Your task to perform on an android device: Show the shopping cart on bestbuy.com. Image 0: 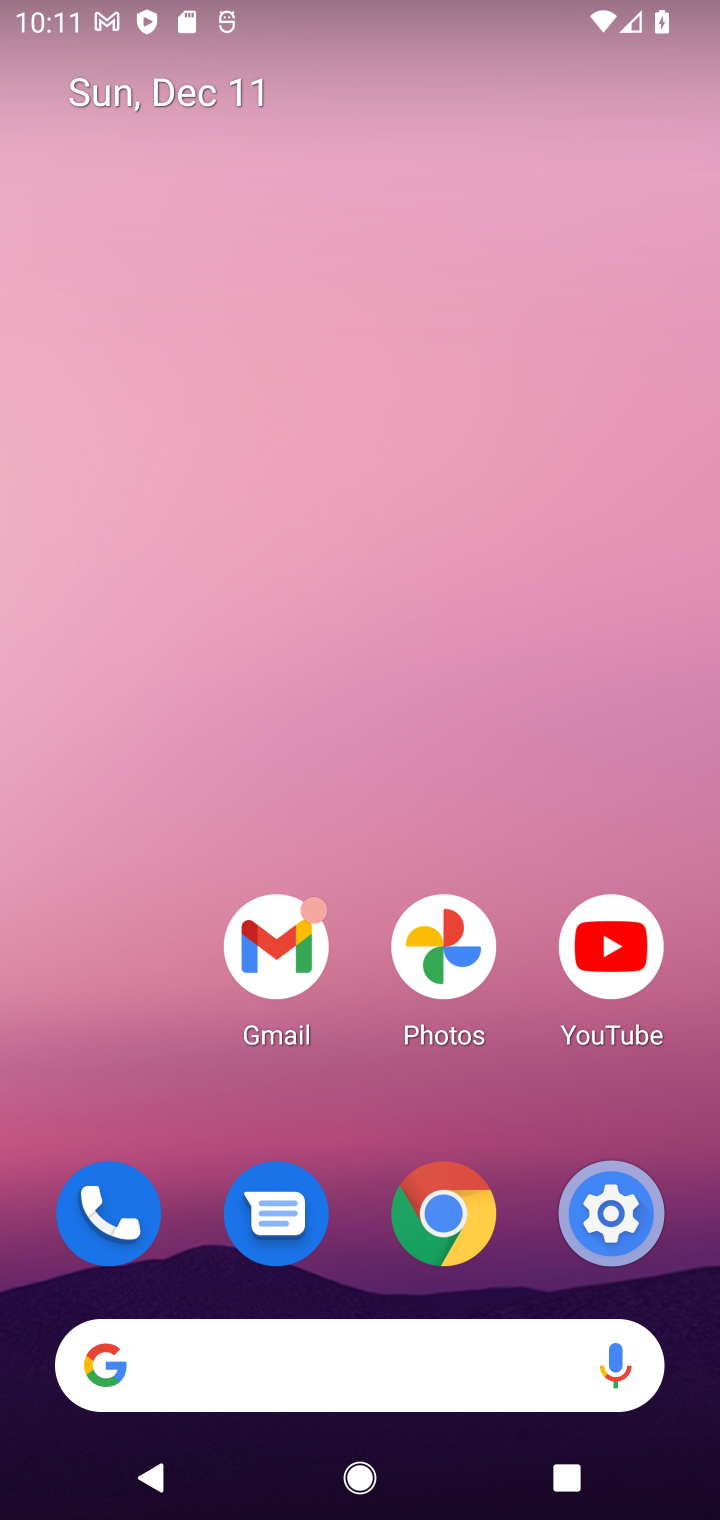
Step 0: click (323, 1388)
Your task to perform on an android device: Show the shopping cart on bestbuy.com. Image 1: 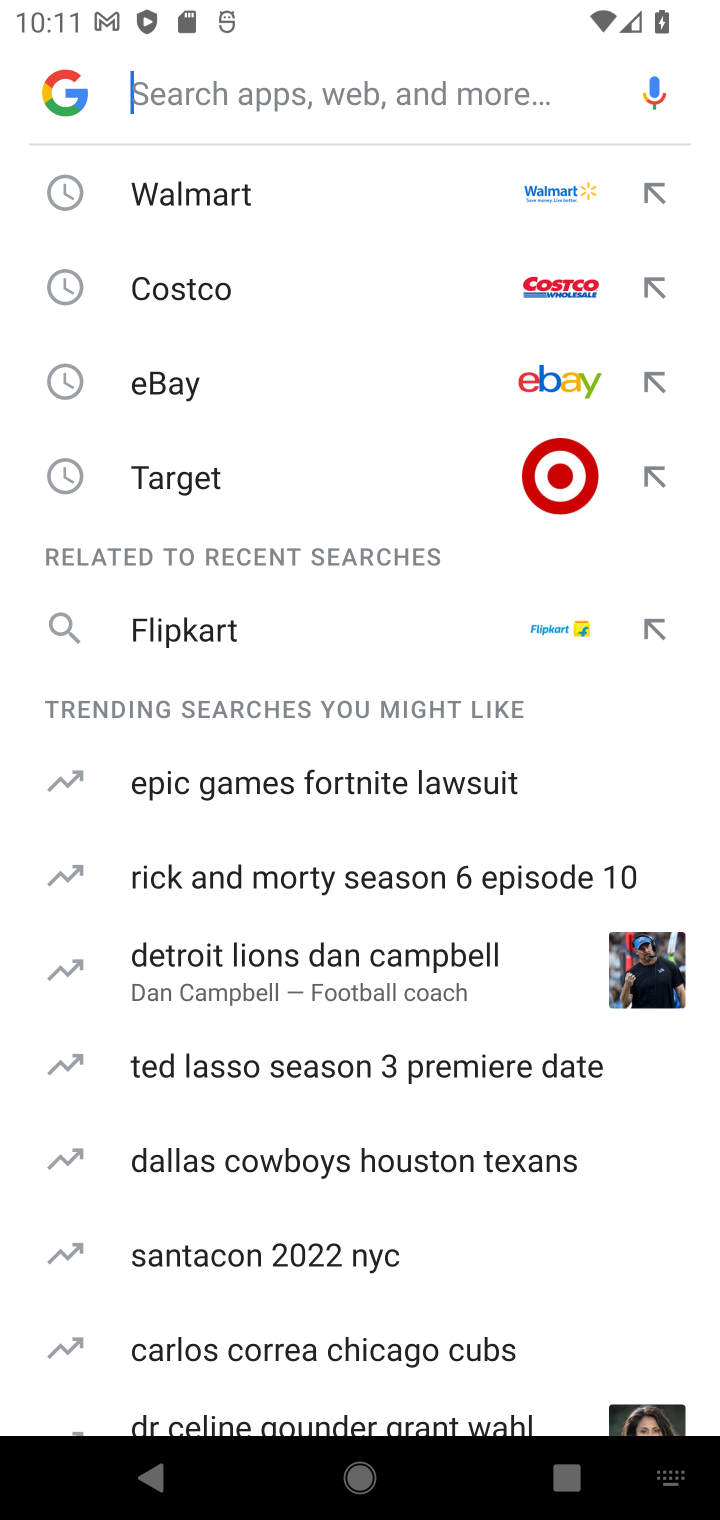
Step 1: type "bestbuy"
Your task to perform on an android device: Show the shopping cart on bestbuy.com. Image 2: 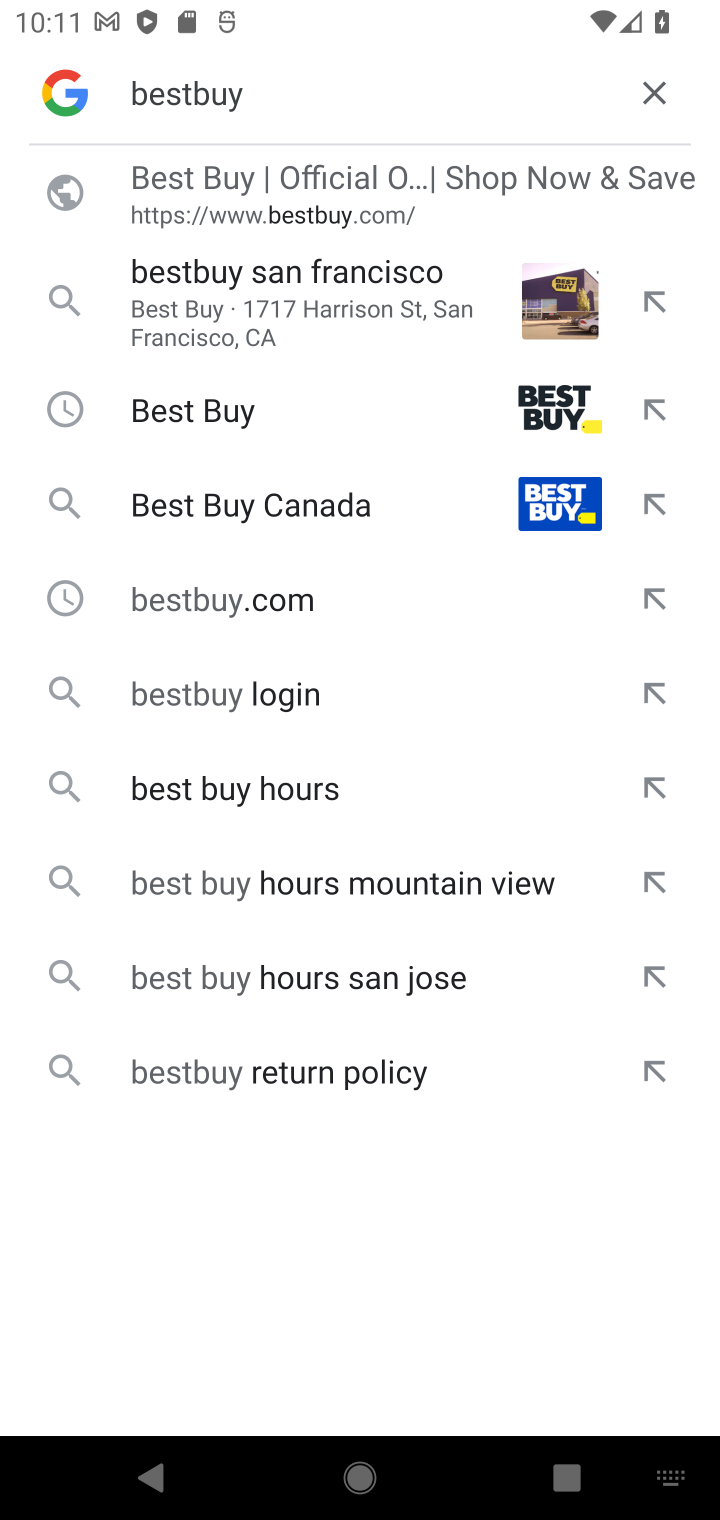
Step 2: click (332, 163)
Your task to perform on an android device: Show the shopping cart on bestbuy.com. Image 3: 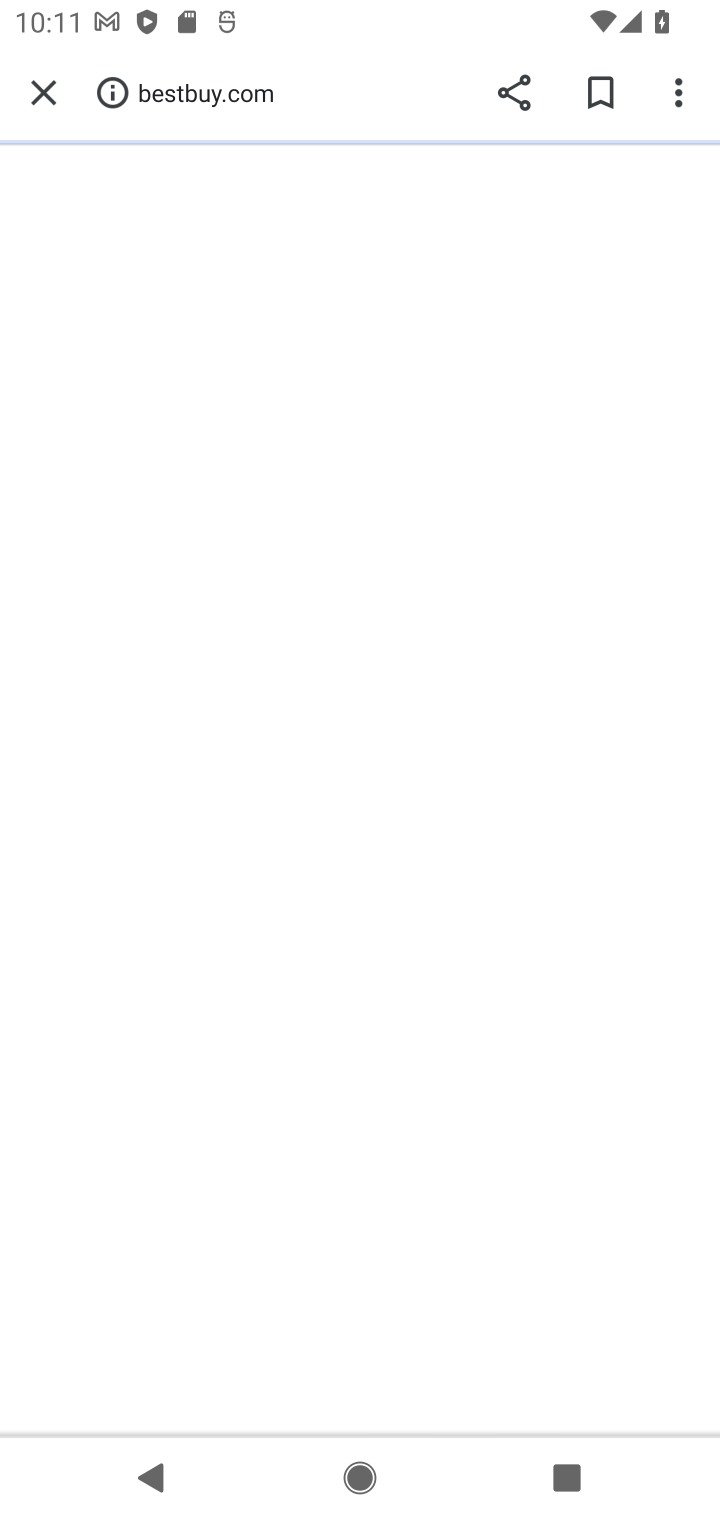
Step 3: click (344, 203)
Your task to perform on an android device: Show the shopping cart on bestbuy.com. Image 4: 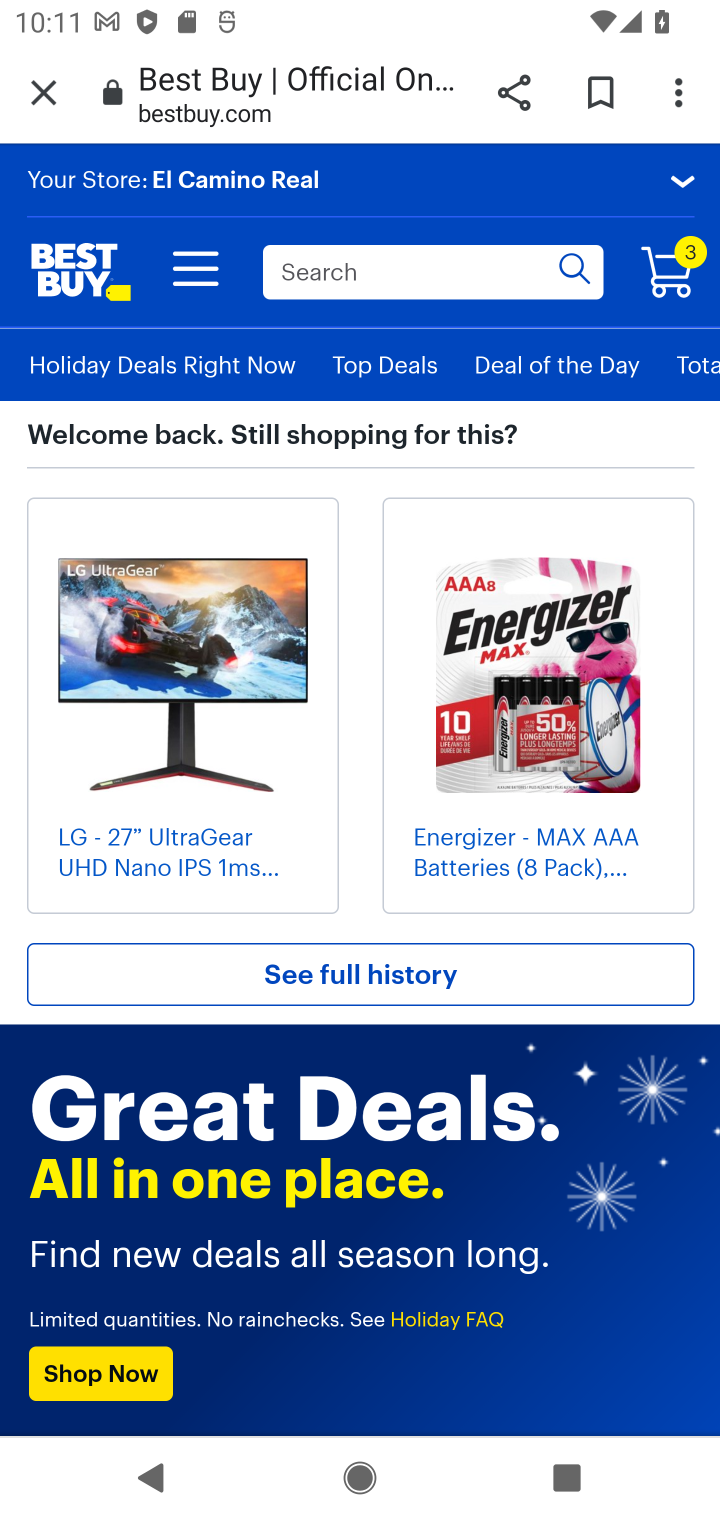
Step 4: click (265, 753)
Your task to perform on an android device: Show the shopping cart on bestbuy.com. Image 5: 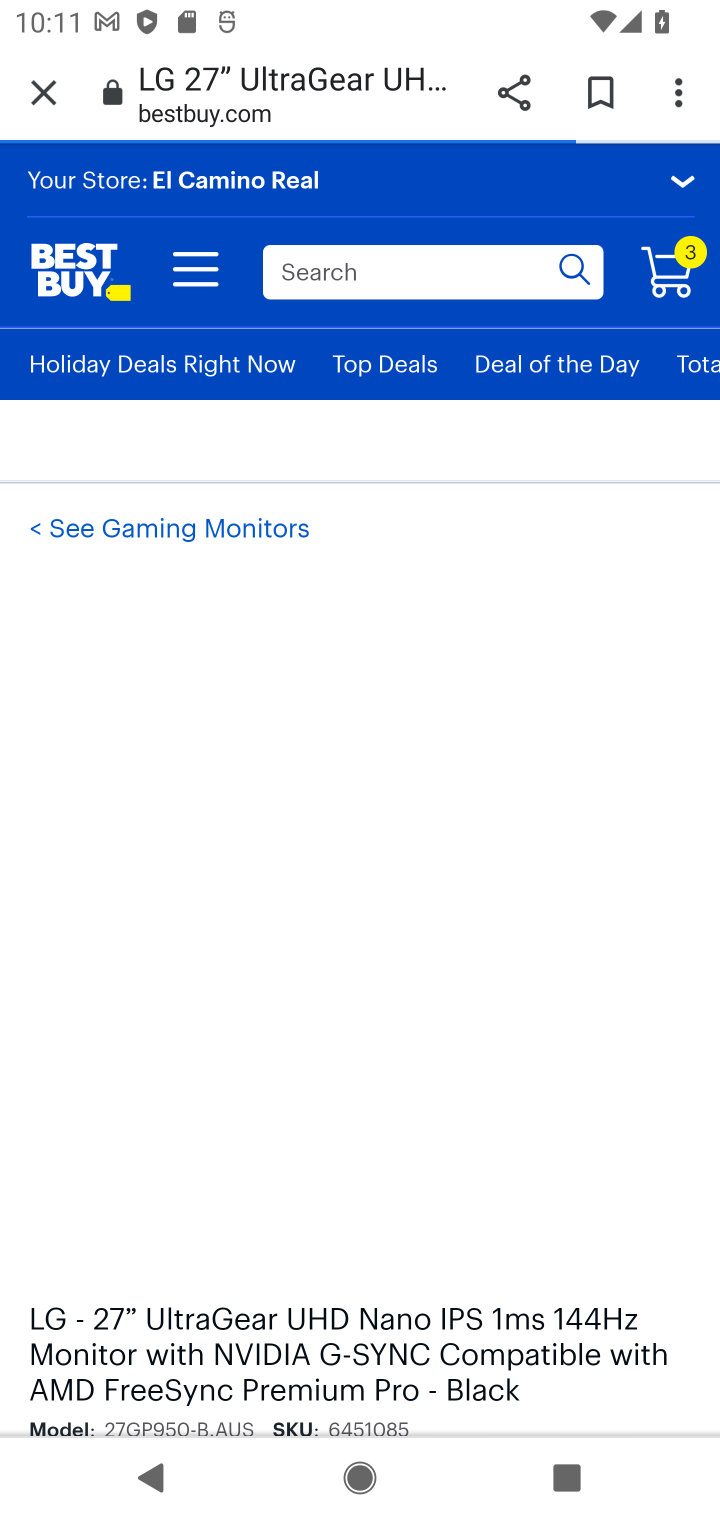
Step 5: click (672, 295)
Your task to perform on an android device: Show the shopping cart on bestbuy.com. Image 6: 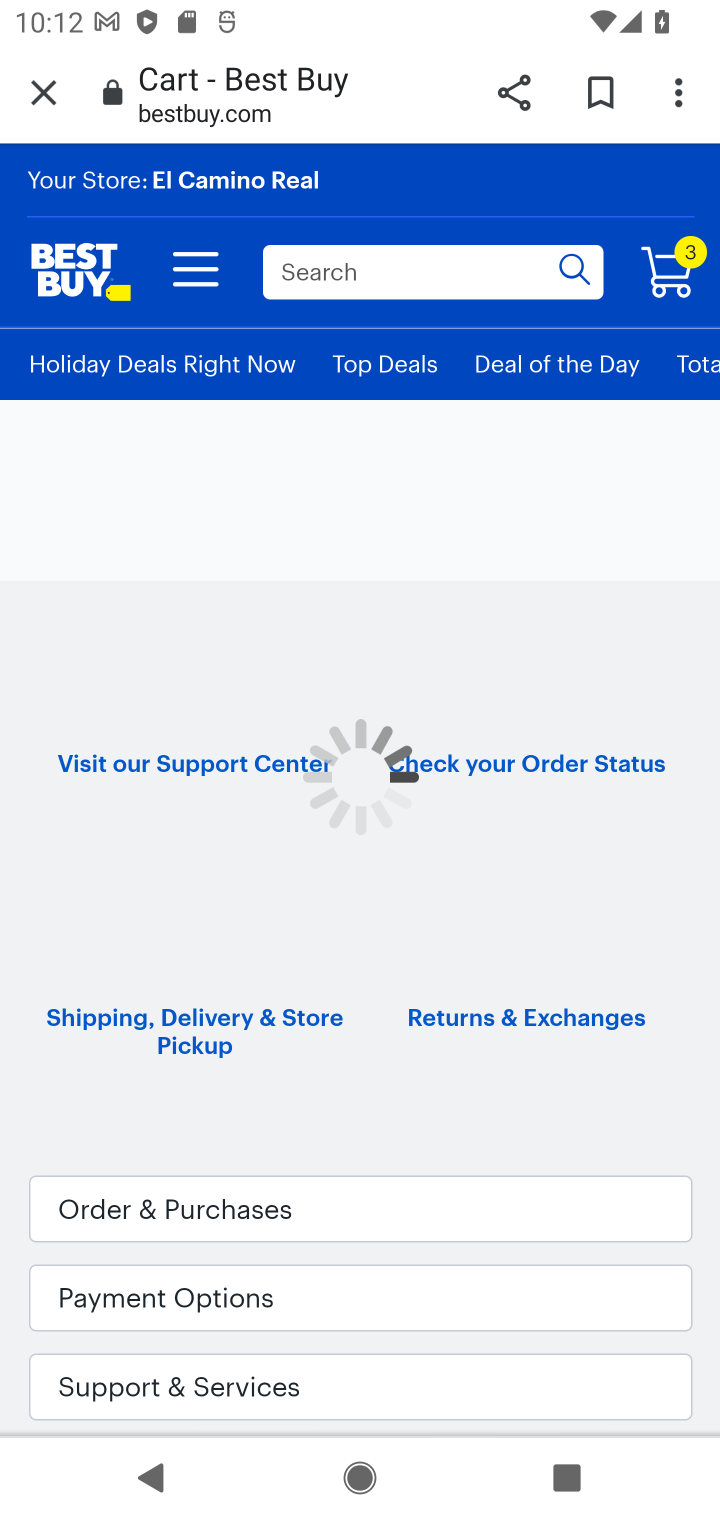
Step 6: click (649, 257)
Your task to perform on an android device: Show the shopping cart on bestbuy.com. Image 7: 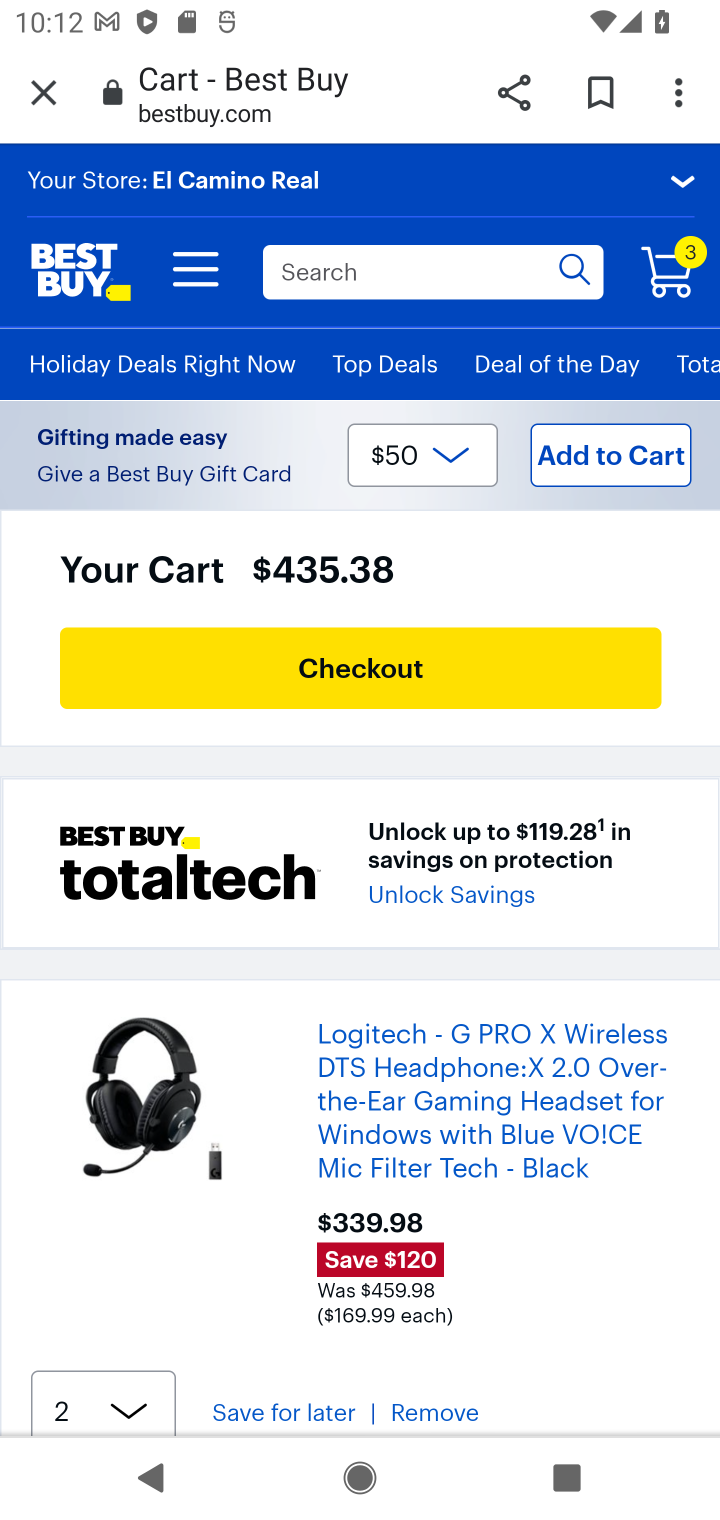
Step 7: task complete